Your task to perform on an android device: change your default location settings in chrome Image 0: 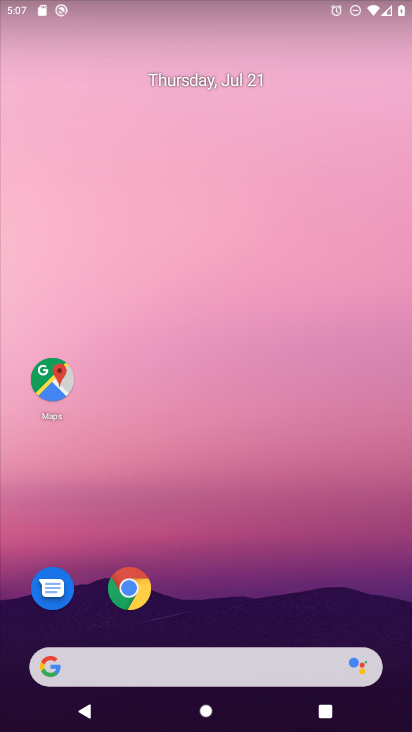
Step 0: click (130, 595)
Your task to perform on an android device: change your default location settings in chrome Image 1: 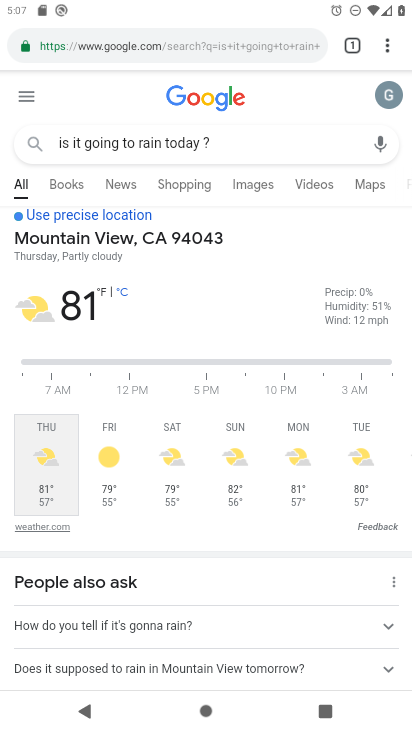
Step 1: click (393, 53)
Your task to perform on an android device: change your default location settings in chrome Image 2: 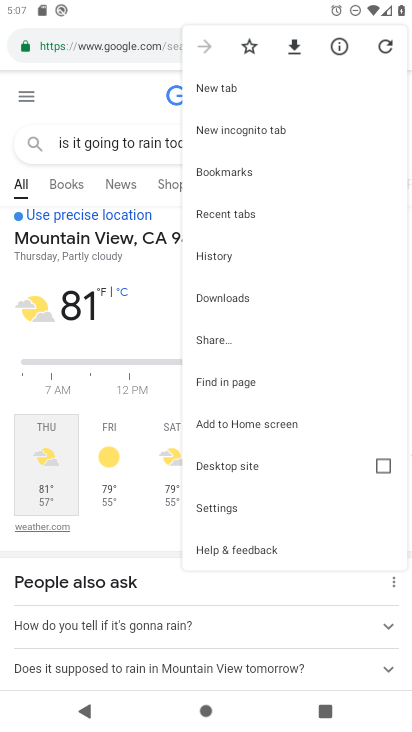
Step 2: click (247, 493)
Your task to perform on an android device: change your default location settings in chrome Image 3: 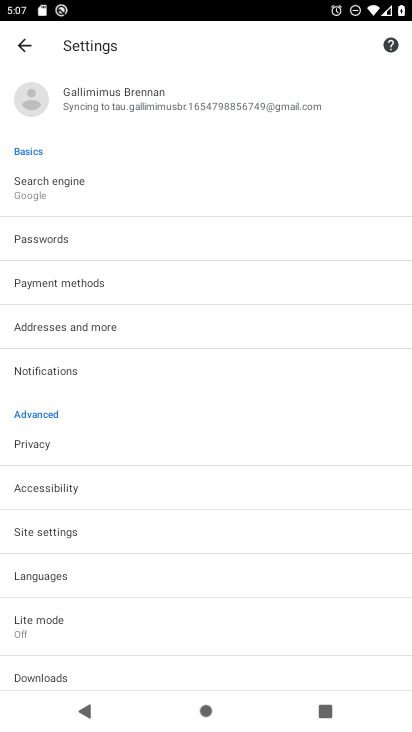
Step 3: click (85, 536)
Your task to perform on an android device: change your default location settings in chrome Image 4: 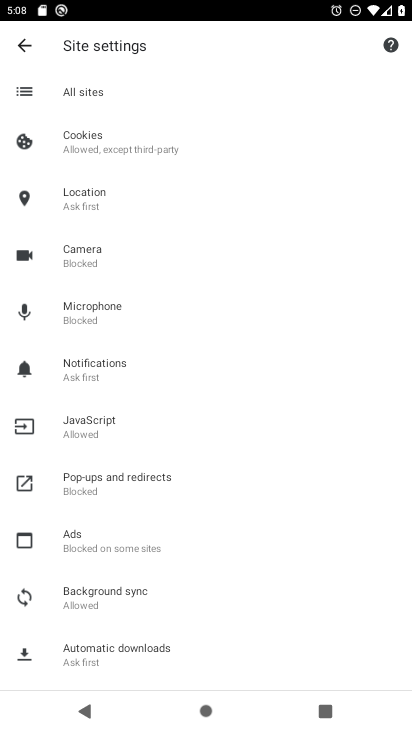
Step 4: click (191, 194)
Your task to perform on an android device: change your default location settings in chrome Image 5: 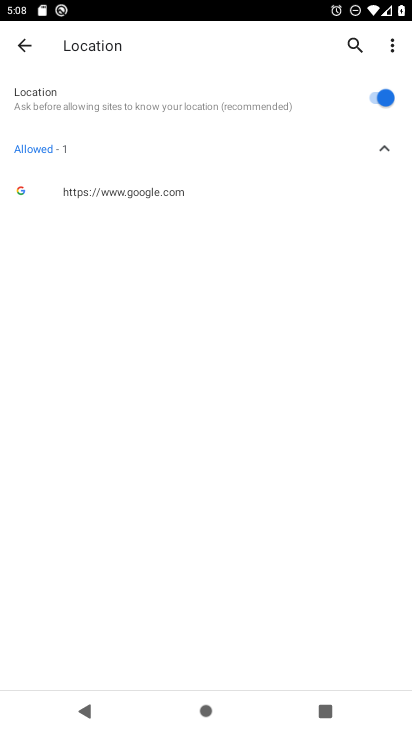
Step 5: click (398, 41)
Your task to perform on an android device: change your default location settings in chrome Image 6: 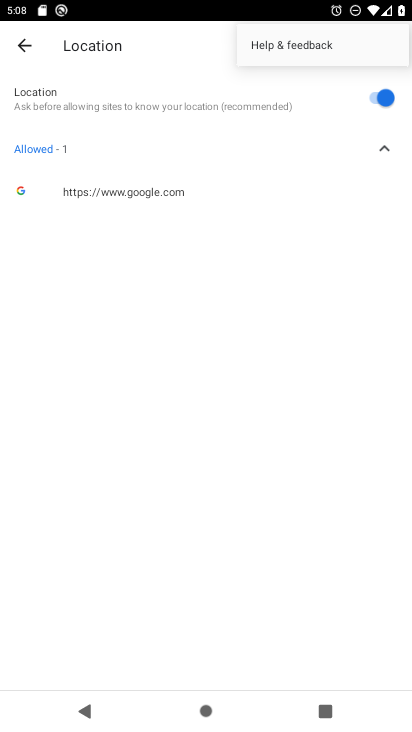
Step 6: task complete